Your task to perform on an android device: set default search engine in the chrome app Image 0: 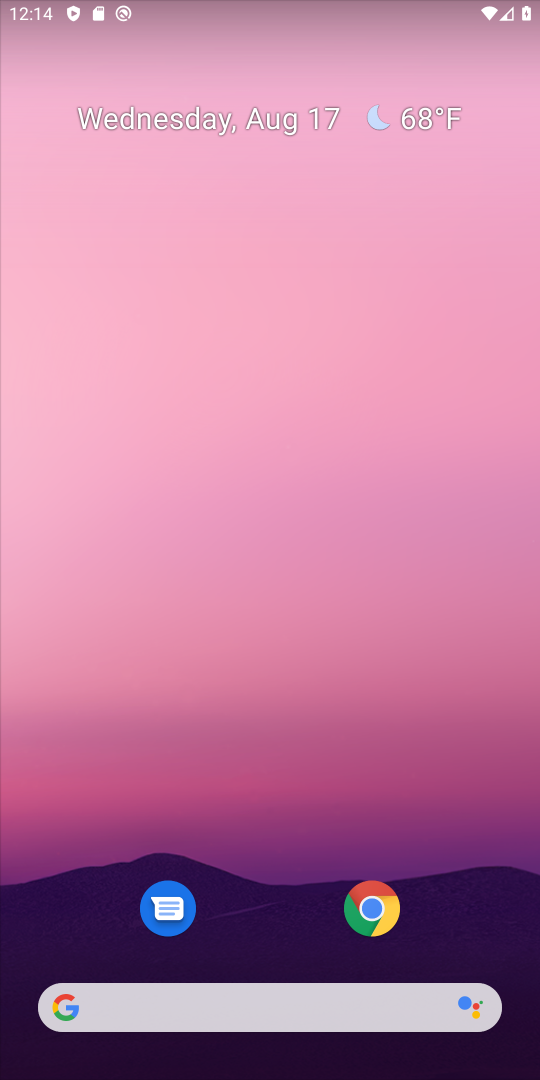
Step 0: click (374, 908)
Your task to perform on an android device: set default search engine in the chrome app Image 1: 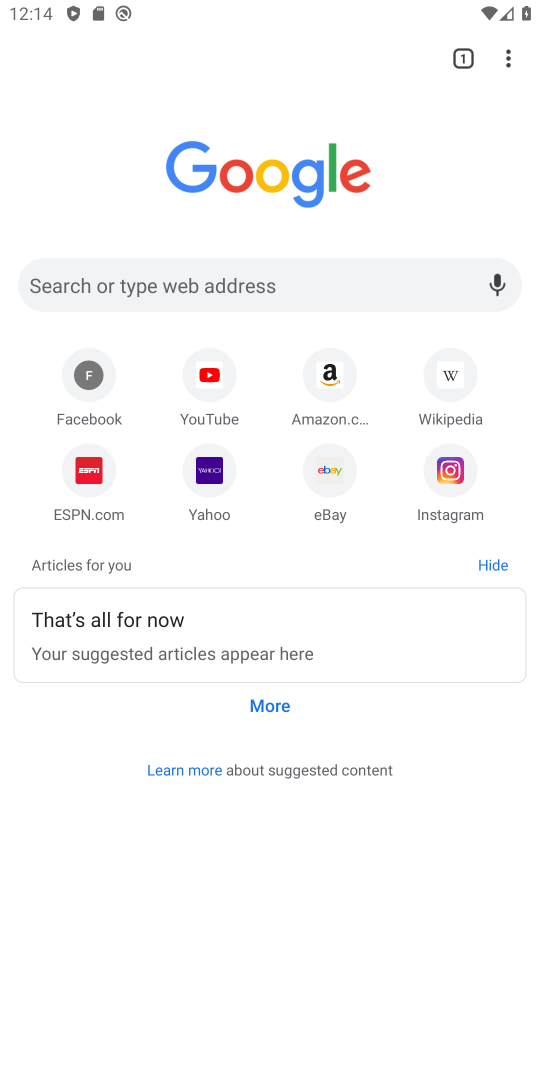
Step 1: click (499, 51)
Your task to perform on an android device: set default search engine in the chrome app Image 2: 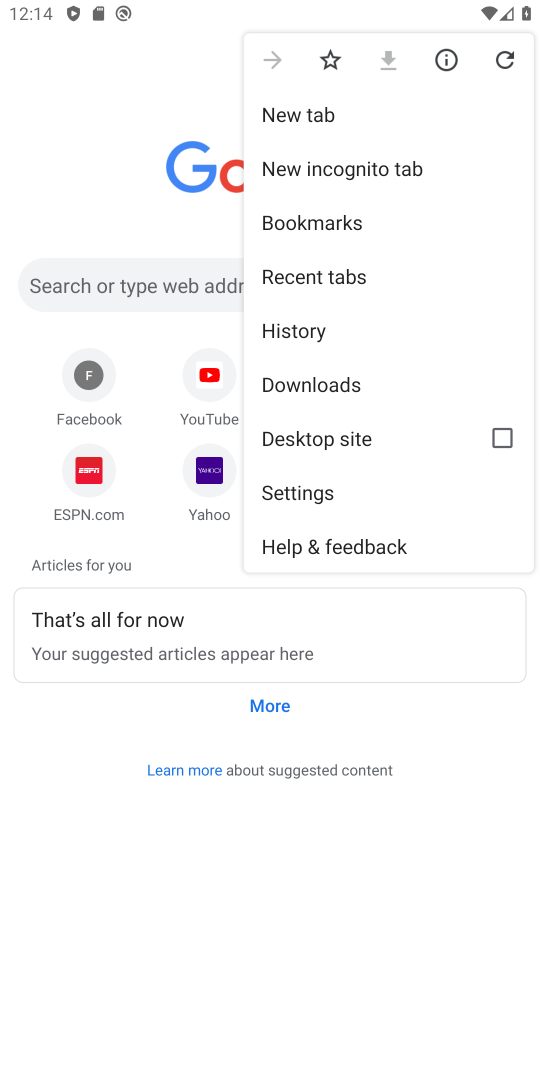
Step 2: click (363, 483)
Your task to perform on an android device: set default search engine in the chrome app Image 3: 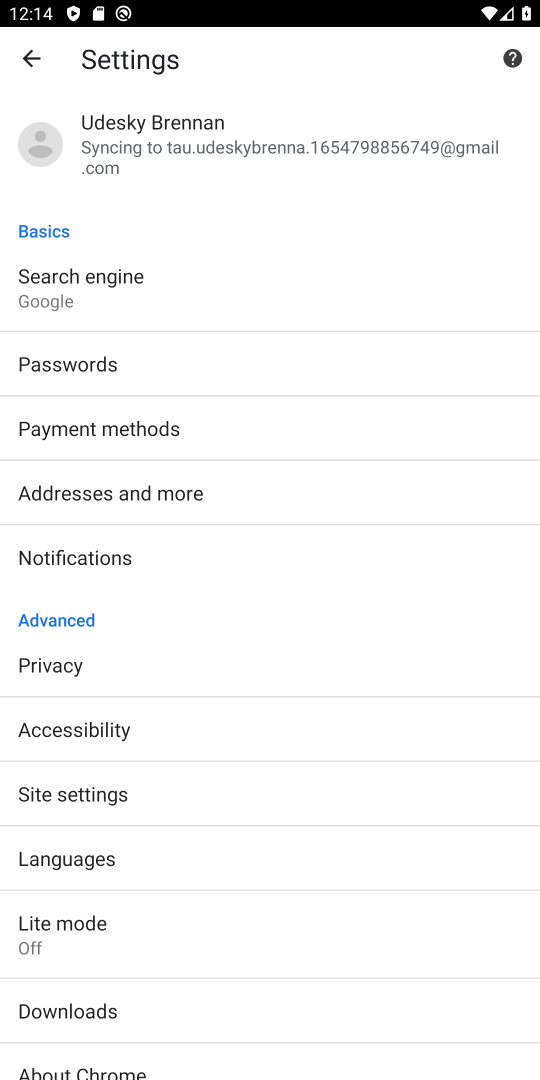
Step 3: click (152, 306)
Your task to perform on an android device: set default search engine in the chrome app Image 4: 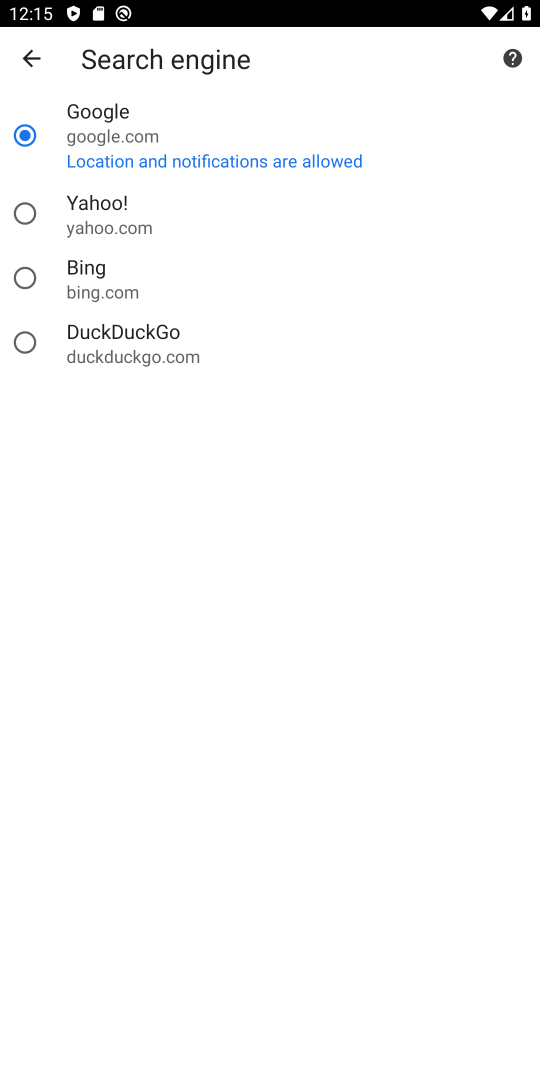
Step 4: task complete